Your task to perform on an android device: Check the news Image 0: 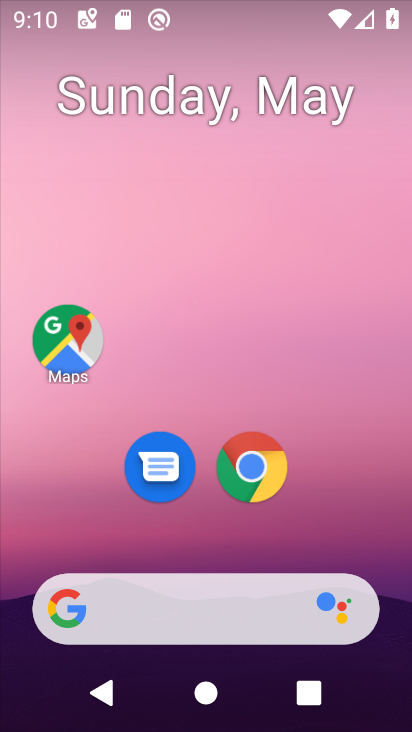
Step 0: drag from (368, 541) to (338, 176)
Your task to perform on an android device: Check the news Image 1: 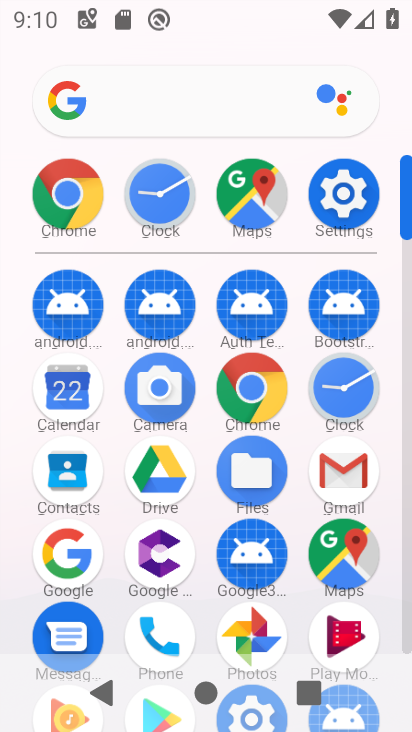
Step 1: click (60, 203)
Your task to perform on an android device: Check the news Image 2: 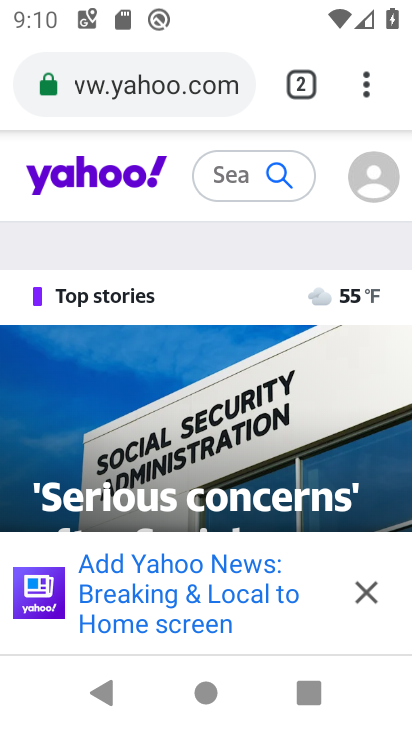
Step 2: click (198, 85)
Your task to perform on an android device: Check the news Image 3: 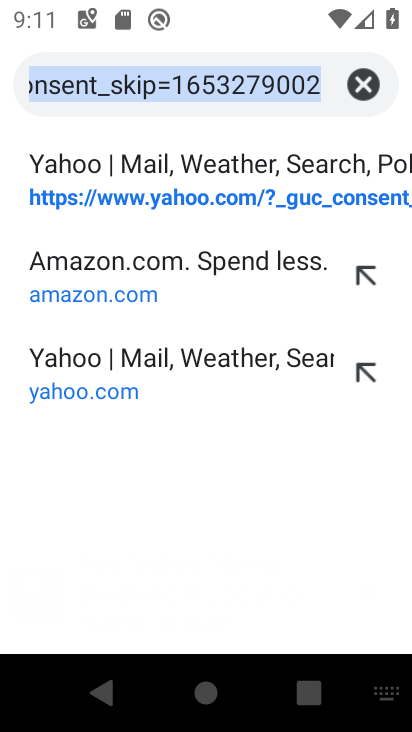
Step 3: click (364, 81)
Your task to perform on an android device: Check the news Image 4: 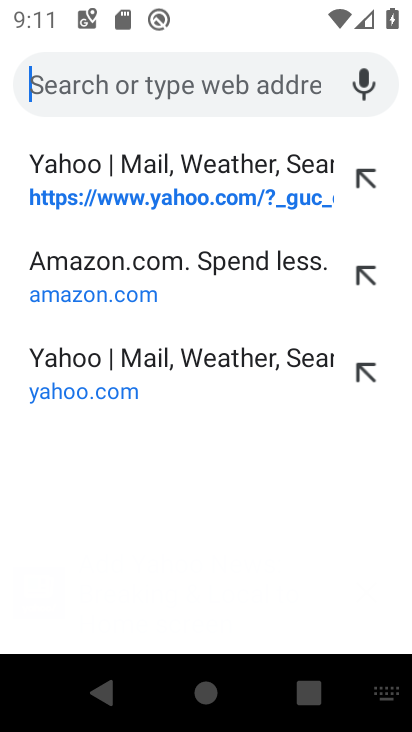
Step 4: type "check the news"
Your task to perform on an android device: Check the news Image 5: 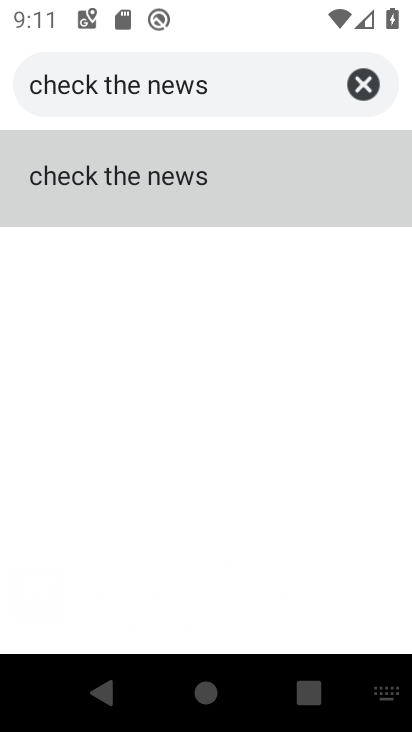
Step 5: click (170, 204)
Your task to perform on an android device: Check the news Image 6: 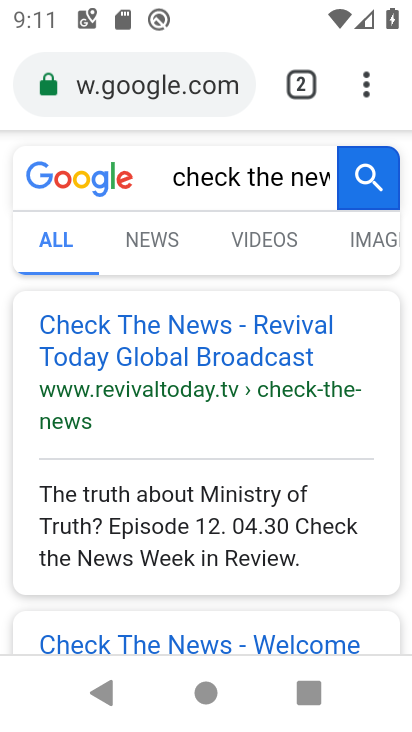
Step 6: click (247, 355)
Your task to perform on an android device: Check the news Image 7: 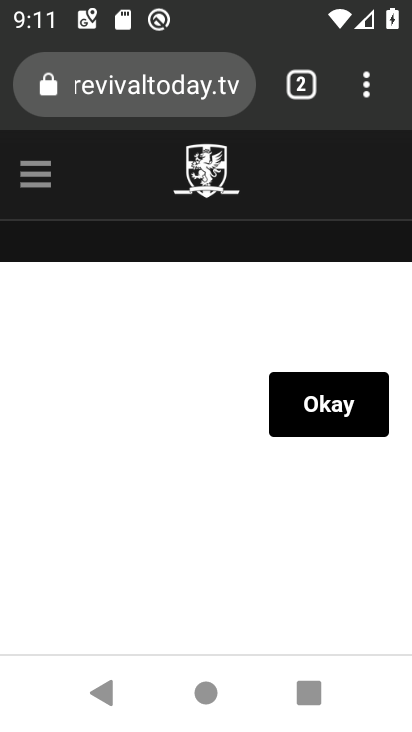
Step 7: task complete